Your task to perform on an android device: turn notification dots off Image 0: 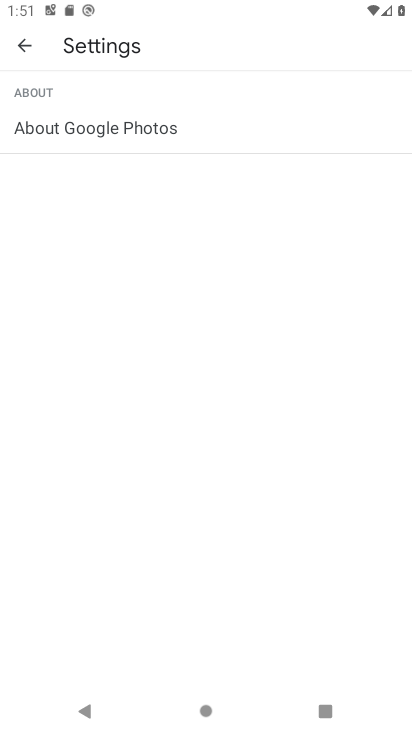
Step 0: press home button
Your task to perform on an android device: turn notification dots off Image 1: 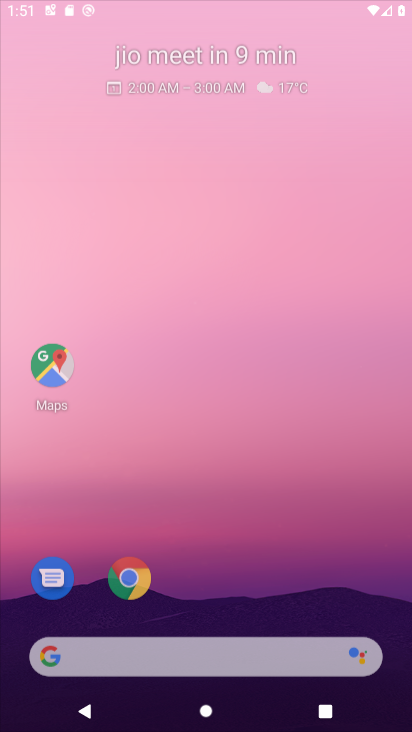
Step 1: click (27, 39)
Your task to perform on an android device: turn notification dots off Image 2: 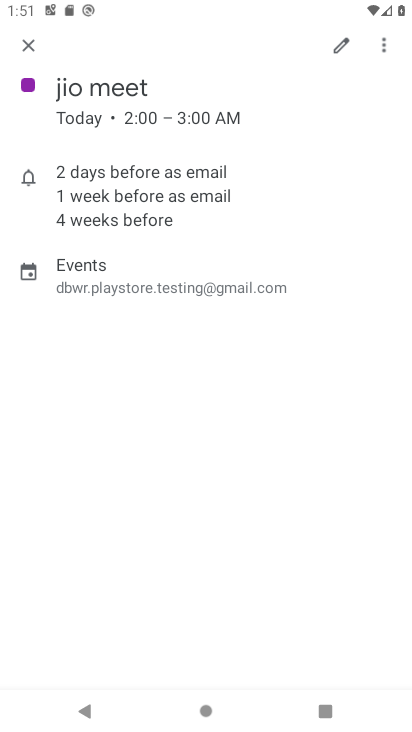
Step 2: click (90, 45)
Your task to perform on an android device: turn notification dots off Image 3: 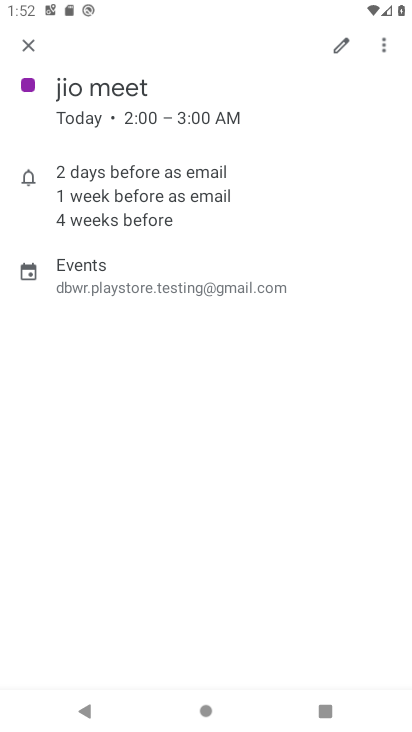
Step 3: press home button
Your task to perform on an android device: turn notification dots off Image 4: 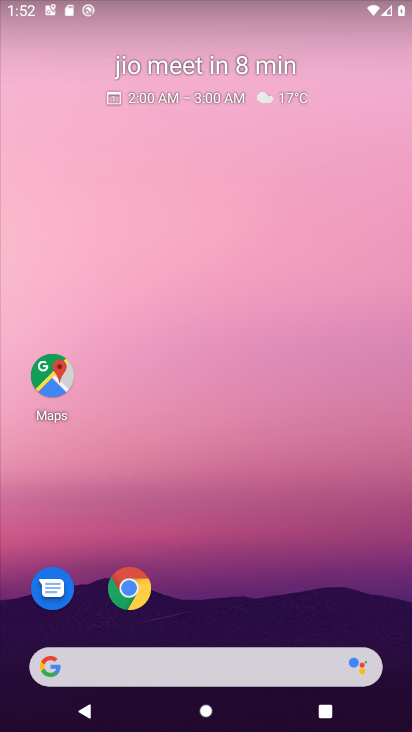
Step 4: drag from (257, 720) to (229, 131)
Your task to perform on an android device: turn notification dots off Image 5: 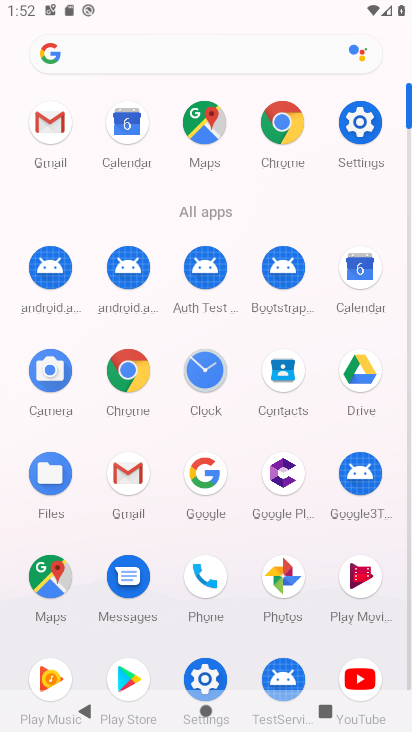
Step 5: click (373, 122)
Your task to perform on an android device: turn notification dots off Image 6: 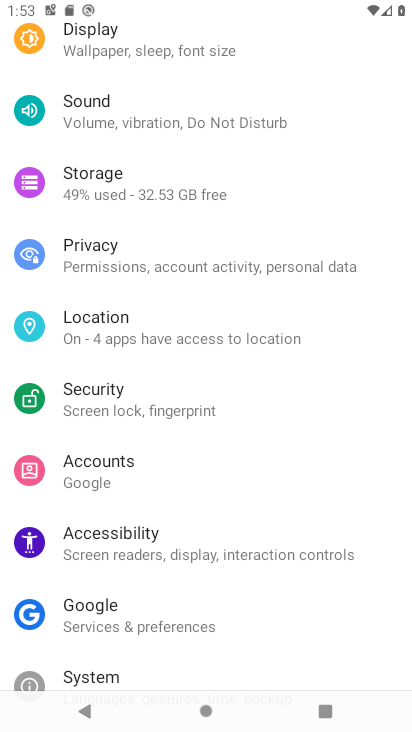
Step 6: drag from (252, 155) to (233, 488)
Your task to perform on an android device: turn notification dots off Image 7: 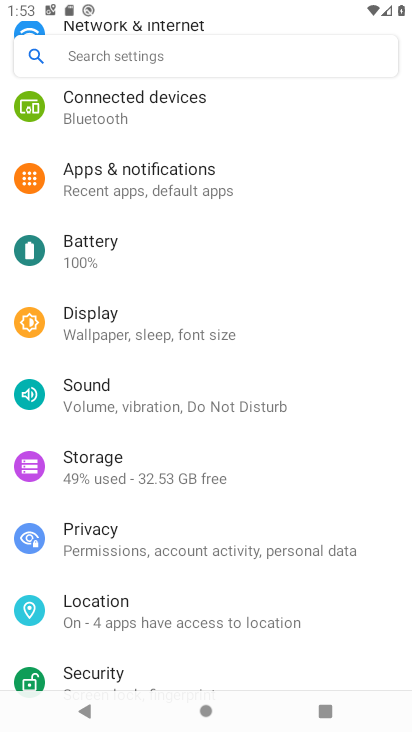
Step 7: click (257, 178)
Your task to perform on an android device: turn notification dots off Image 8: 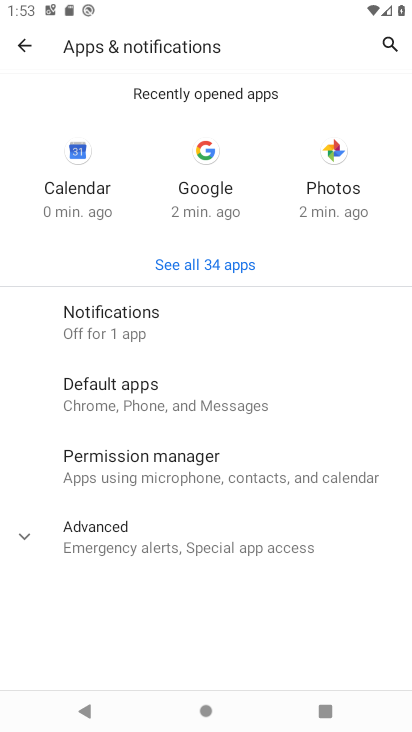
Step 8: click (142, 335)
Your task to perform on an android device: turn notification dots off Image 9: 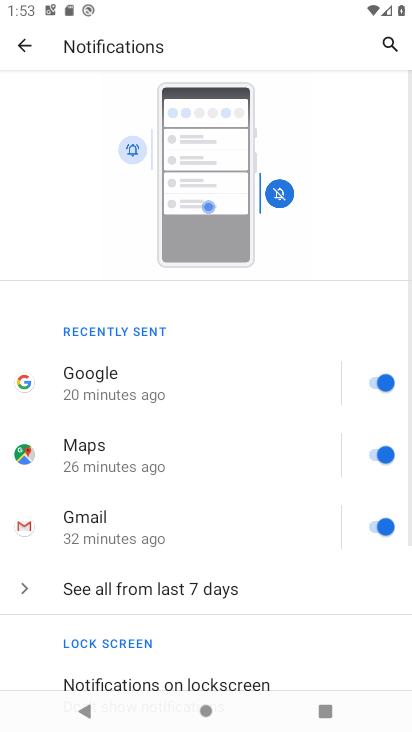
Step 9: drag from (280, 661) to (276, 291)
Your task to perform on an android device: turn notification dots off Image 10: 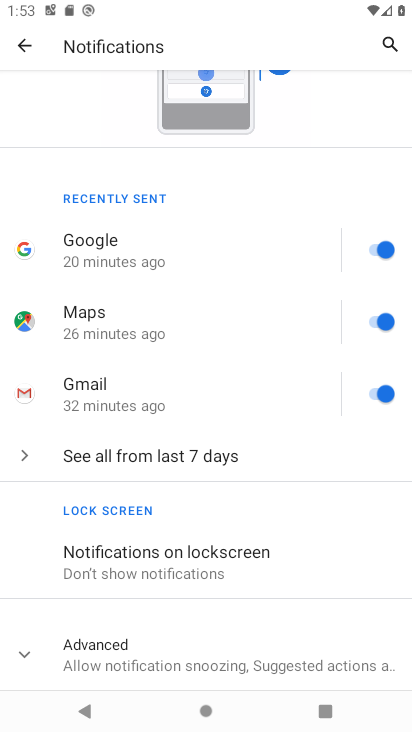
Step 10: click (296, 668)
Your task to perform on an android device: turn notification dots off Image 11: 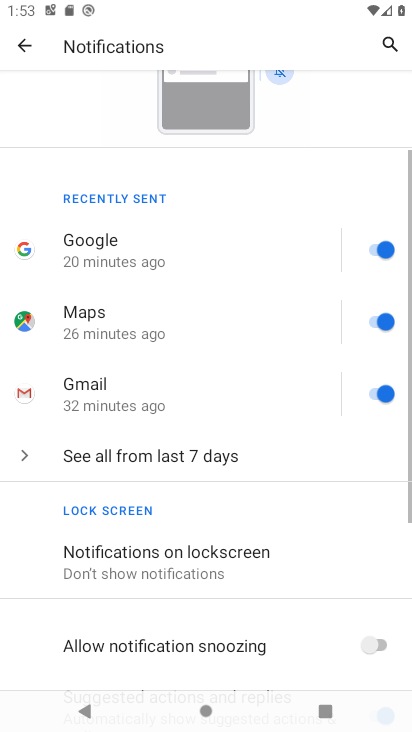
Step 11: task complete